Your task to perform on an android device: open a bookmark in the chrome app Image 0: 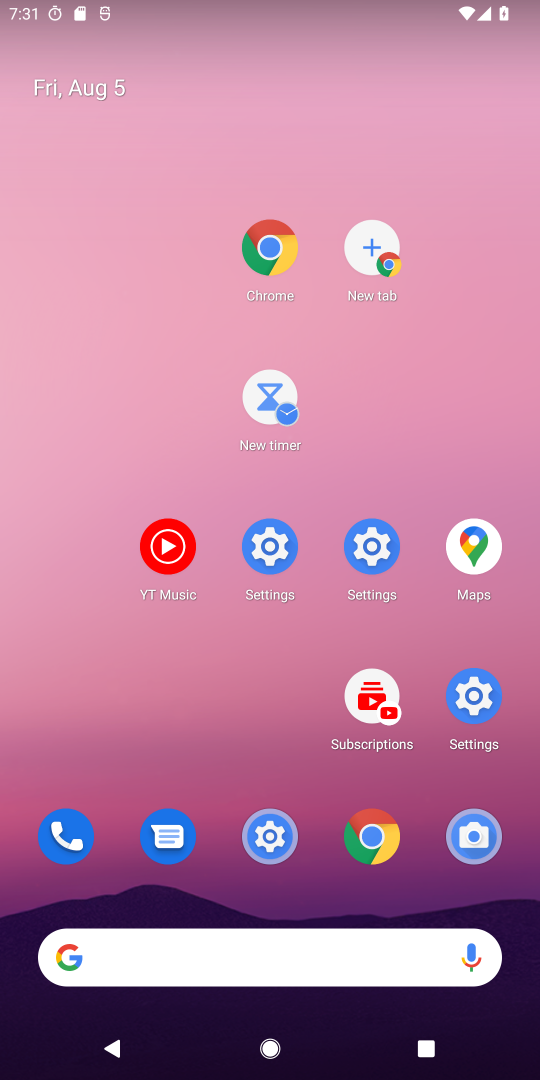
Step 0: click (357, 537)
Your task to perform on an android device: open a bookmark in the chrome app Image 1: 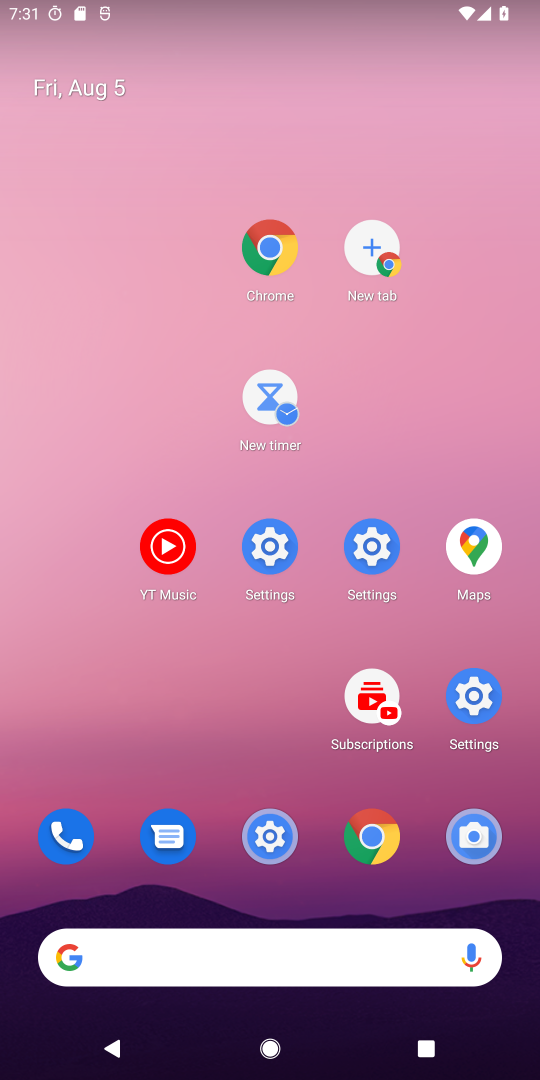
Step 1: drag from (364, 743) to (308, 304)
Your task to perform on an android device: open a bookmark in the chrome app Image 2: 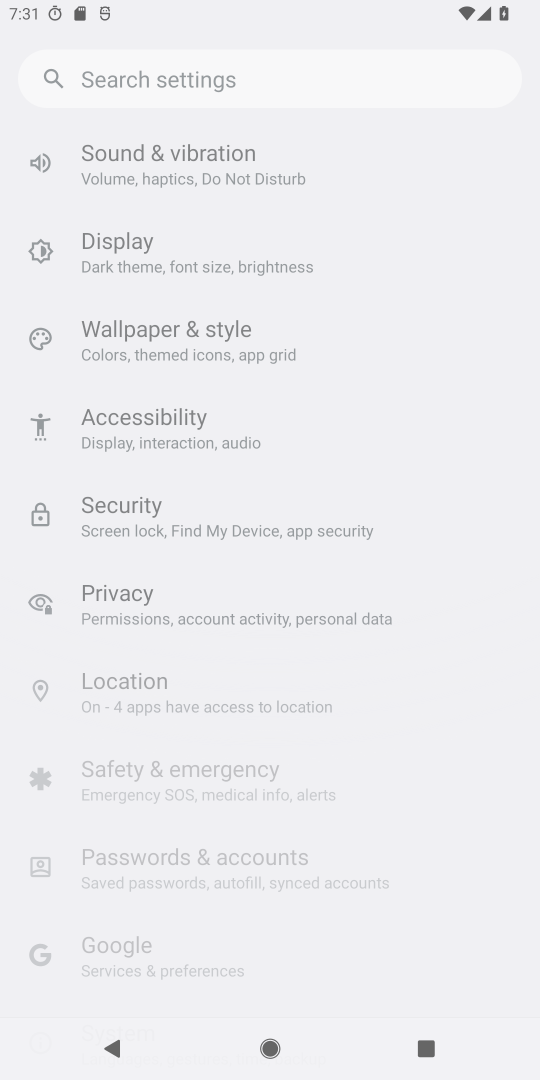
Step 2: click (239, 242)
Your task to perform on an android device: open a bookmark in the chrome app Image 3: 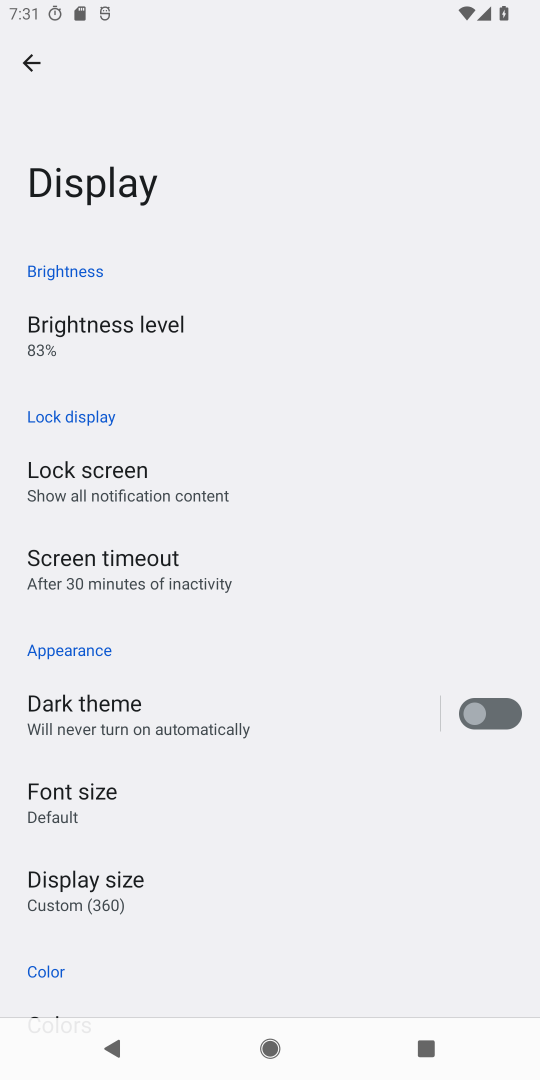
Step 3: click (28, 74)
Your task to perform on an android device: open a bookmark in the chrome app Image 4: 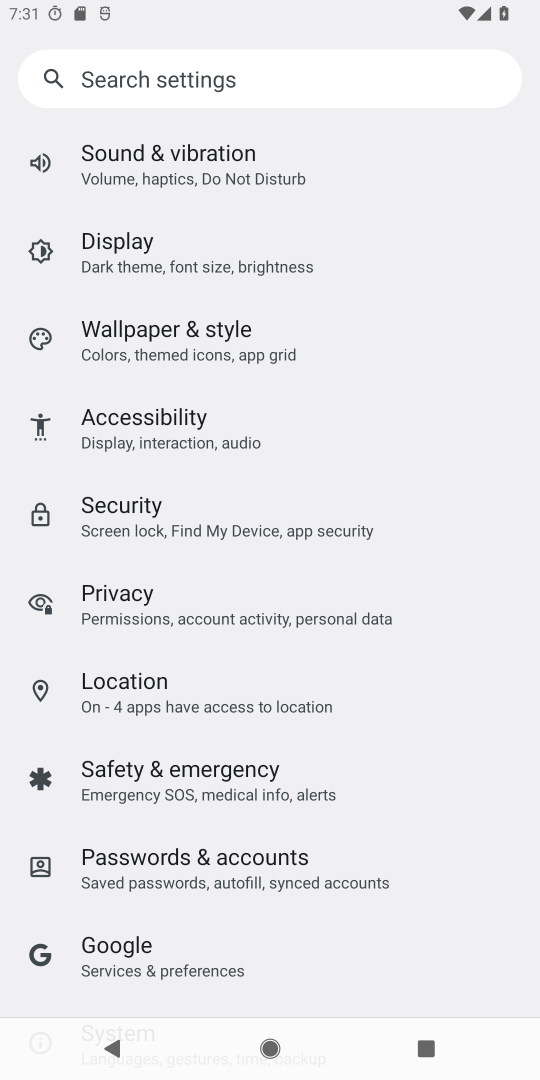
Step 4: drag from (180, 308) to (253, 731)
Your task to perform on an android device: open a bookmark in the chrome app Image 5: 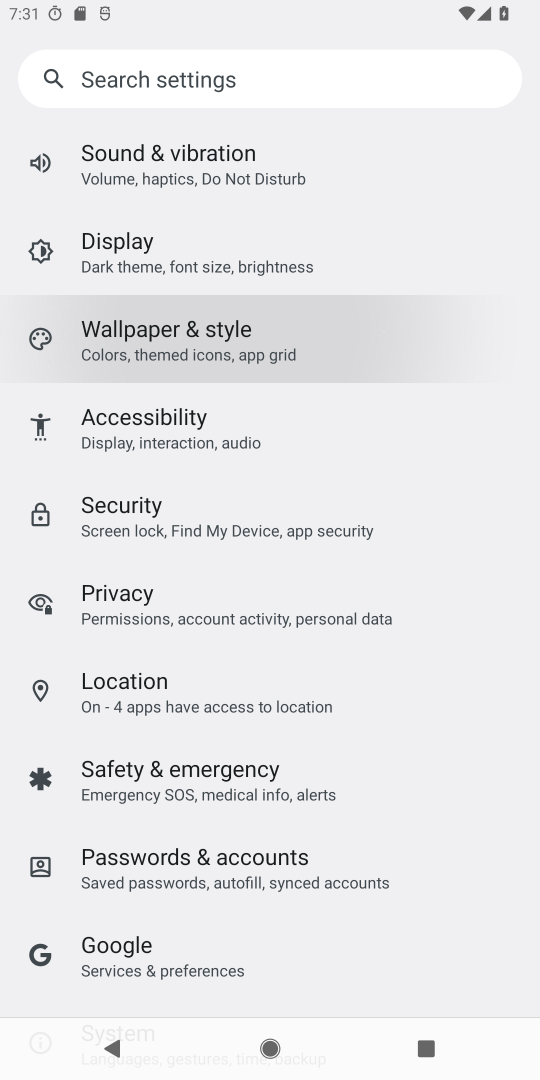
Step 5: drag from (126, 409) to (160, 809)
Your task to perform on an android device: open a bookmark in the chrome app Image 6: 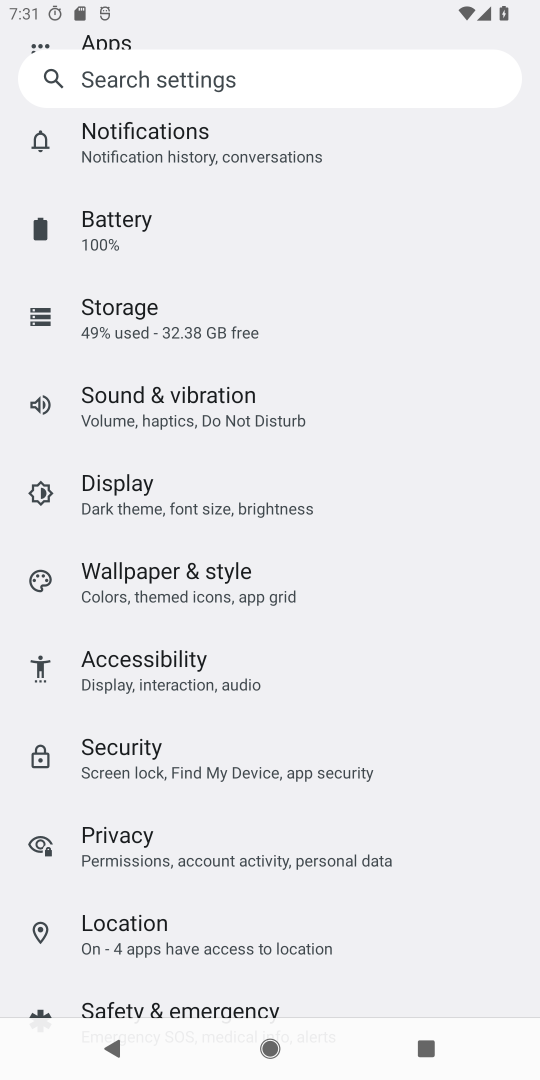
Step 6: press back button
Your task to perform on an android device: open a bookmark in the chrome app Image 7: 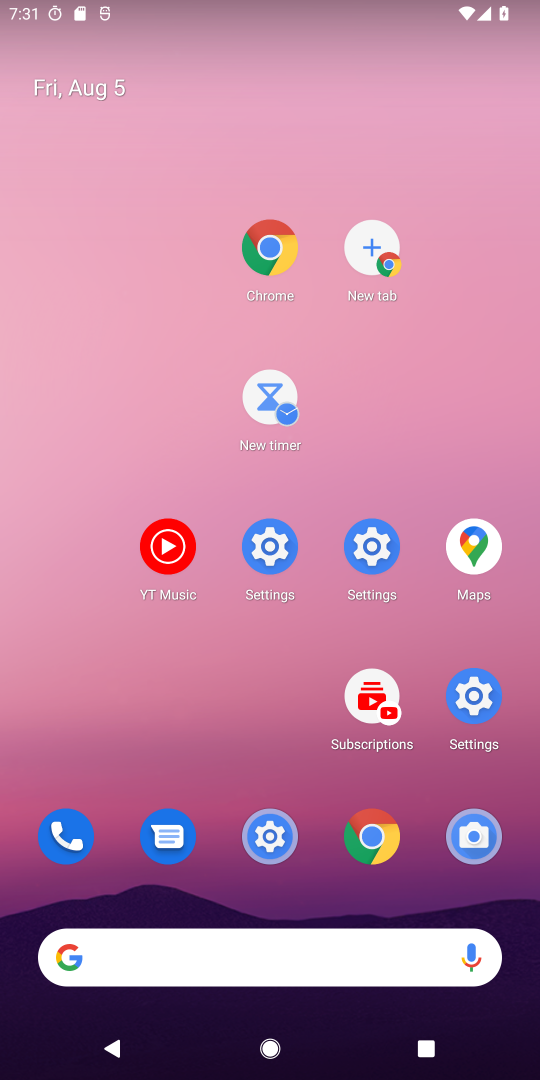
Step 7: drag from (308, 725) to (313, 370)
Your task to perform on an android device: open a bookmark in the chrome app Image 8: 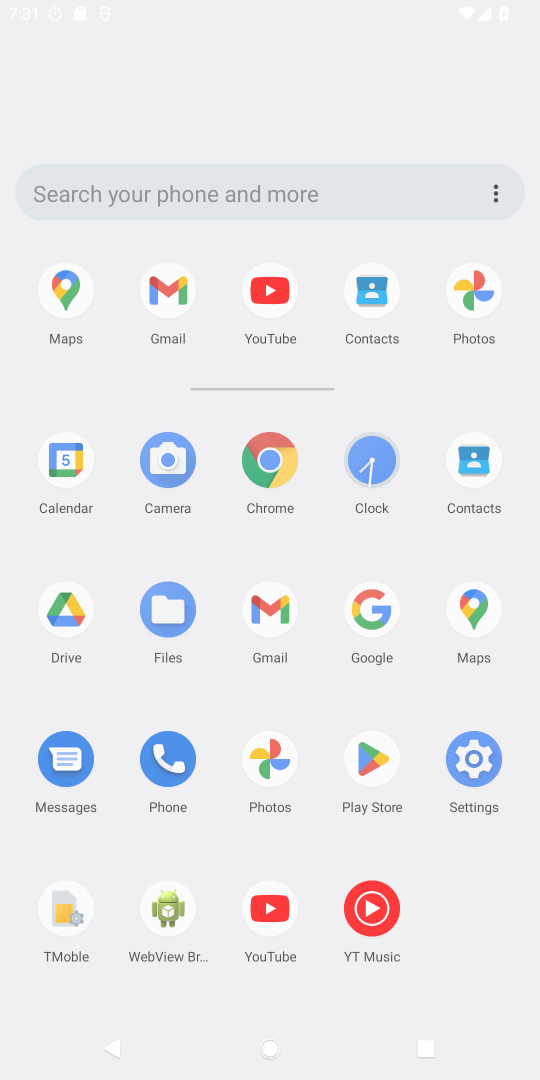
Step 8: click (237, 400)
Your task to perform on an android device: open a bookmark in the chrome app Image 9: 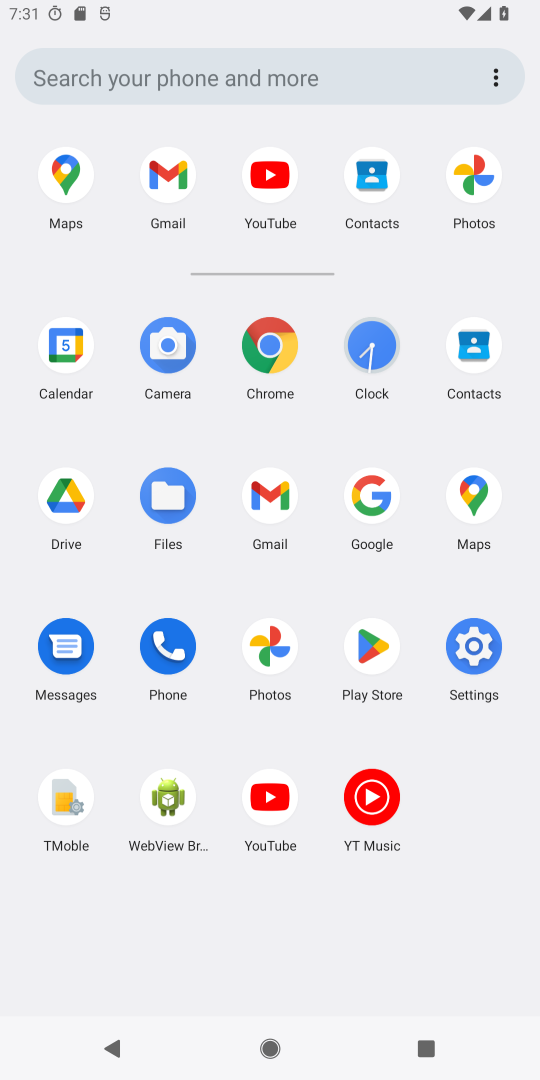
Step 9: drag from (315, 866) to (196, 229)
Your task to perform on an android device: open a bookmark in the chrome app Image 10: 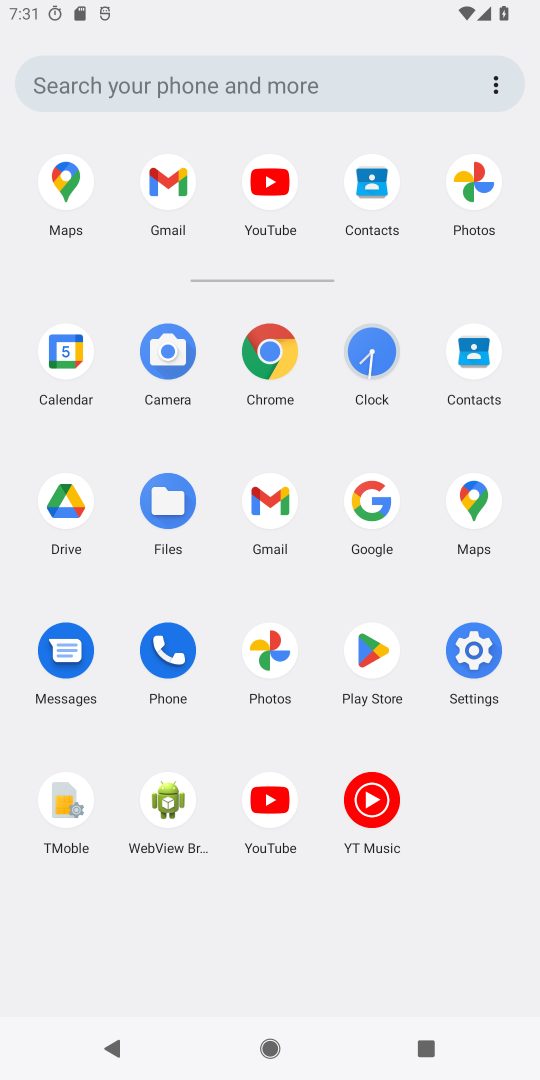
Step 10: click (265, 352)
Your task to perform on an android device: open a bookmark in the chrome app Image 11: 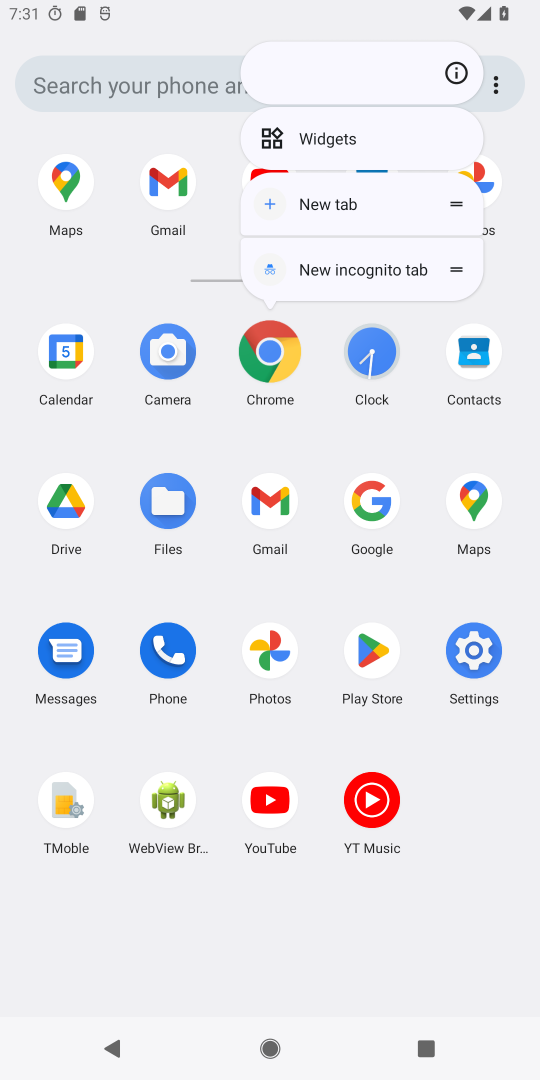
Step 11: click (266, 353)
Your task to perform on an android device: open a bookmark in the chrome app Image 12: 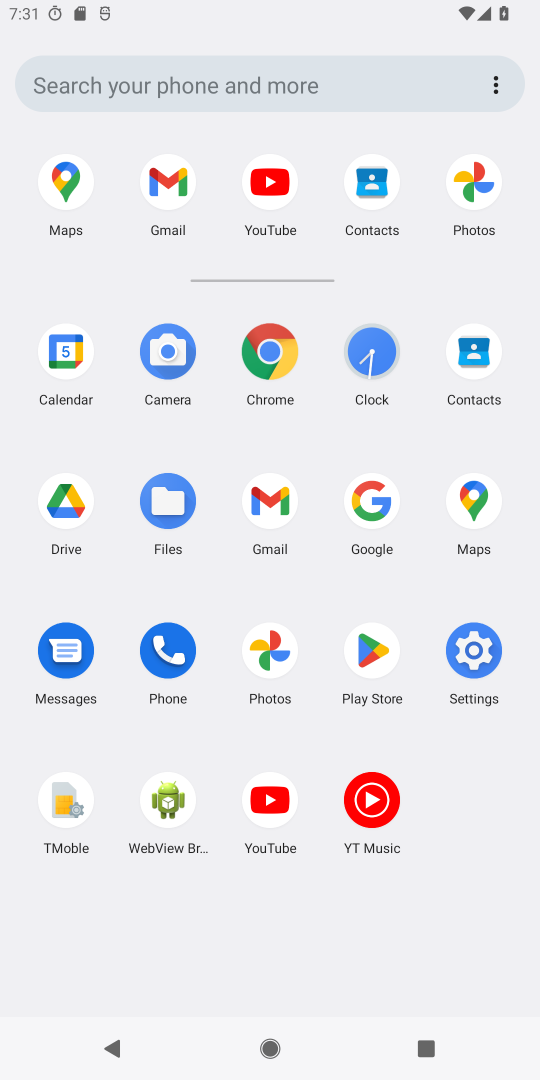
Step 12: click (264, 356)
Your task to perform on an android device: open a bookmark in the chrome app Image 13: 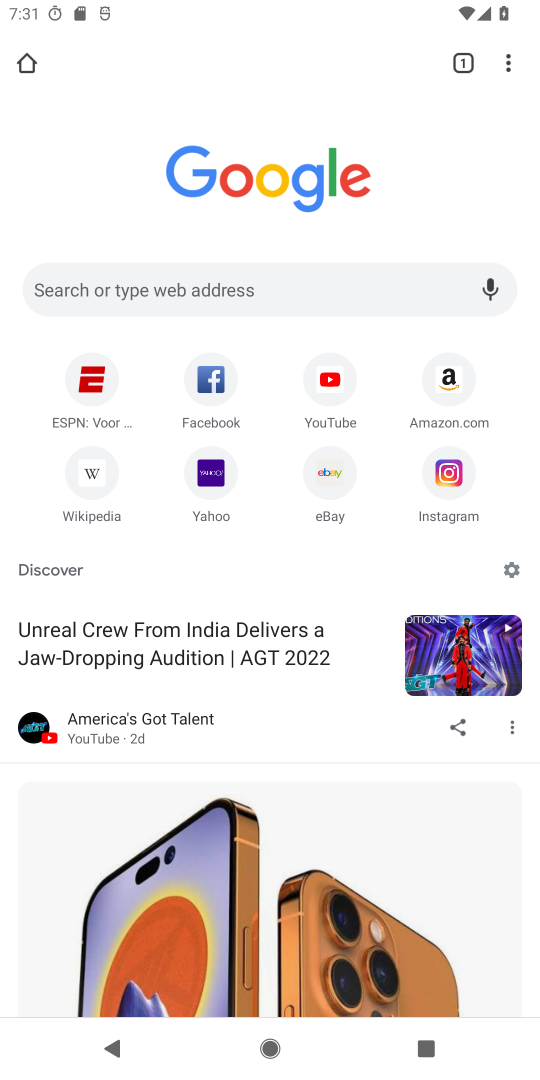
Step 13: drag from (508, 70) to (455, 127)
Your task to perform on an android device: open a bookmark in the chrome app Image 14: 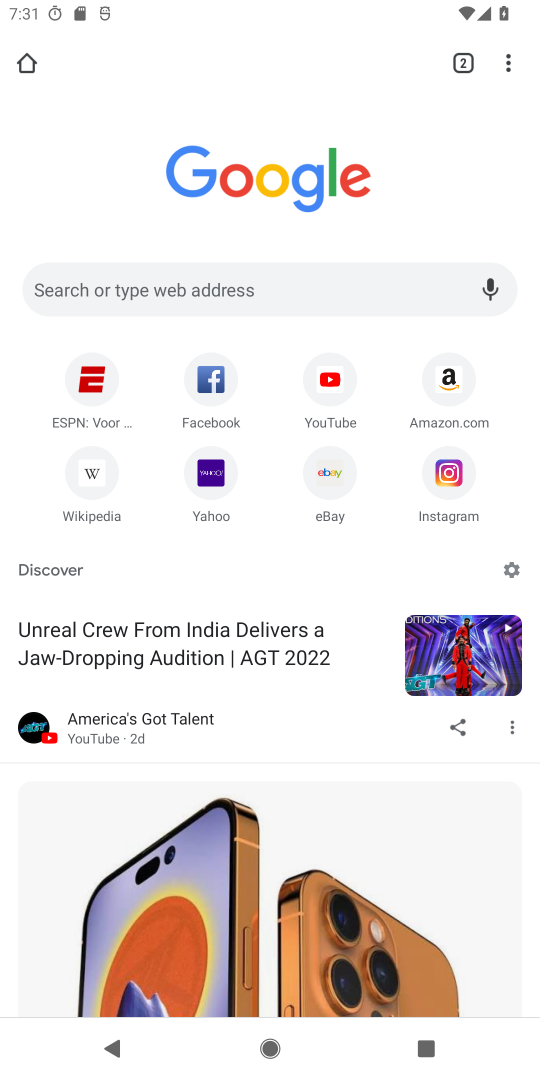
Step 14: drag from (502, 64) to (336, 534)
Your task to perform on an android device: open a bookmark in the chrome app Image 15: 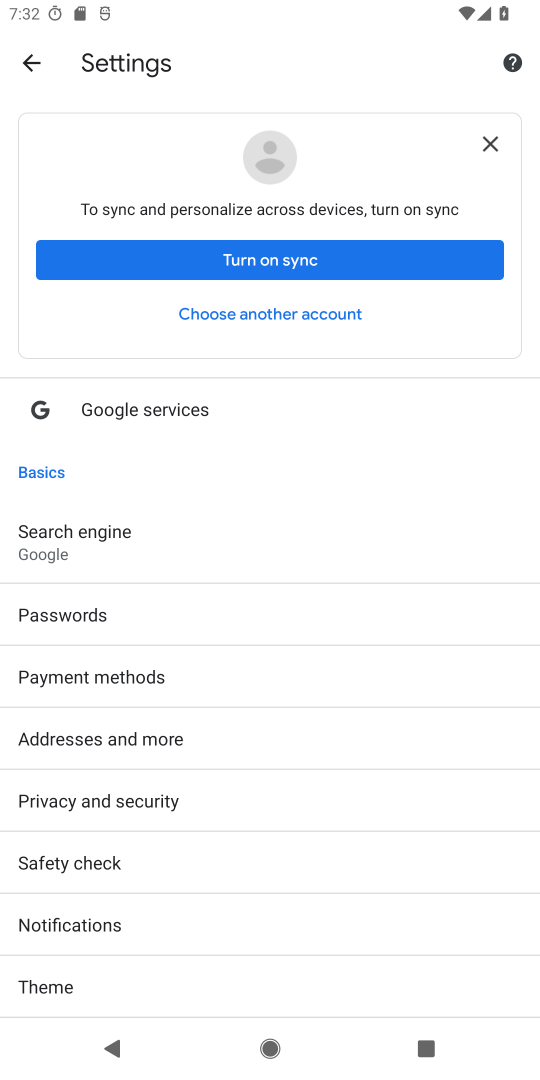
Step 15: click (27, 61)
Your task to perform on an android device: open a bookmark in the chrome app Image 16: 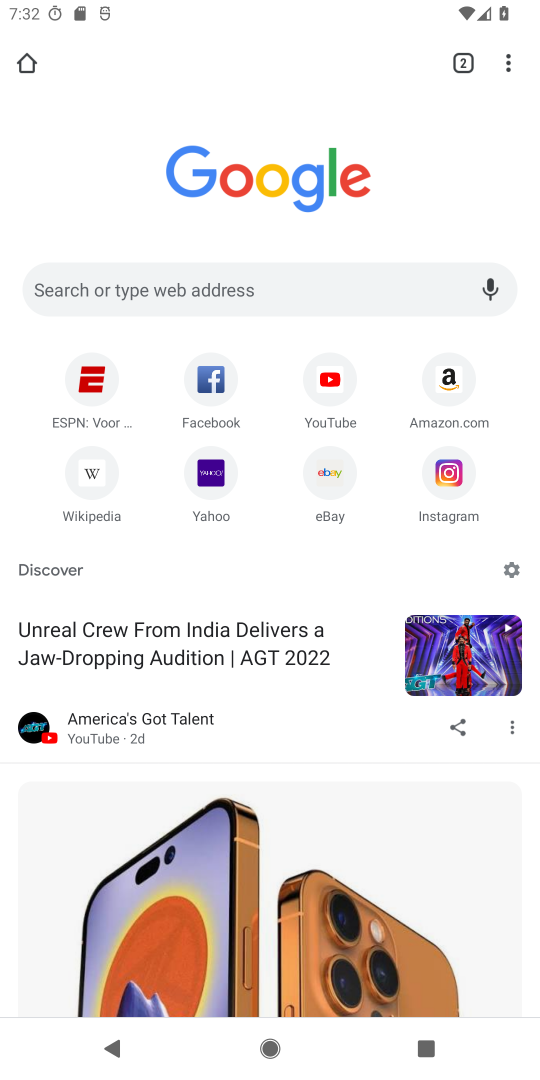
Step 16: drag from (507, 55) to (355, 351)
Your task to perform on an android device: open a bookmark in the chrome app Image 17: 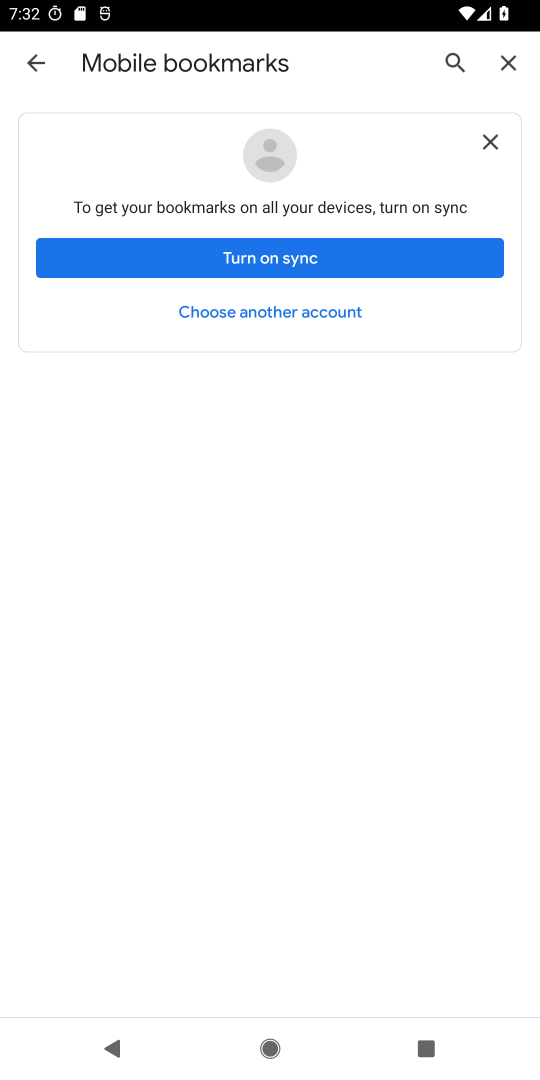
Step 17: click (487, 134)
Your task to perform on an android device: open a bookmark in the chrome app Image 18: 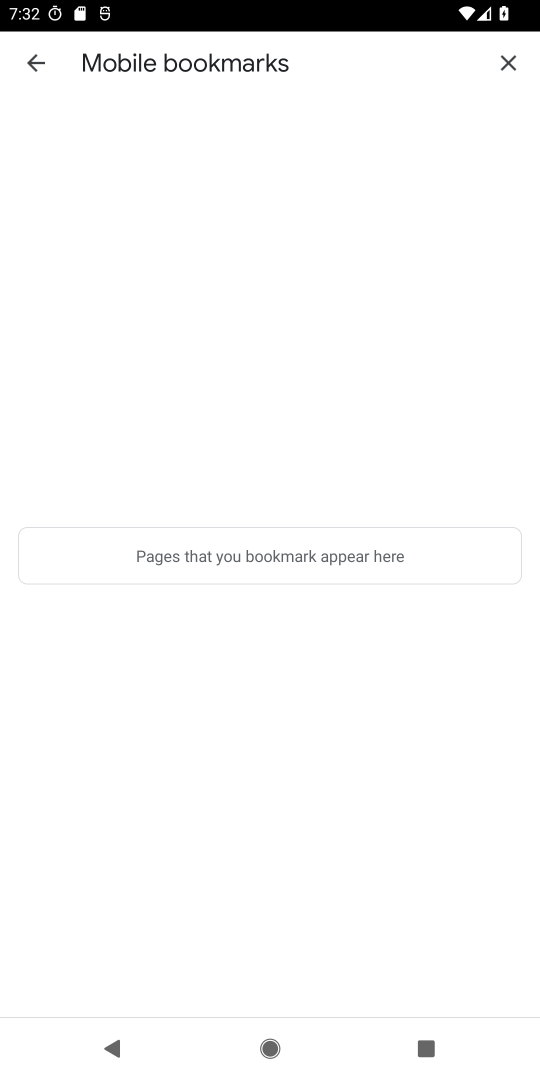
Step 18: click (507, 65)
Your task to perform on an android device: open a bookmark in the chrome app Image 19: 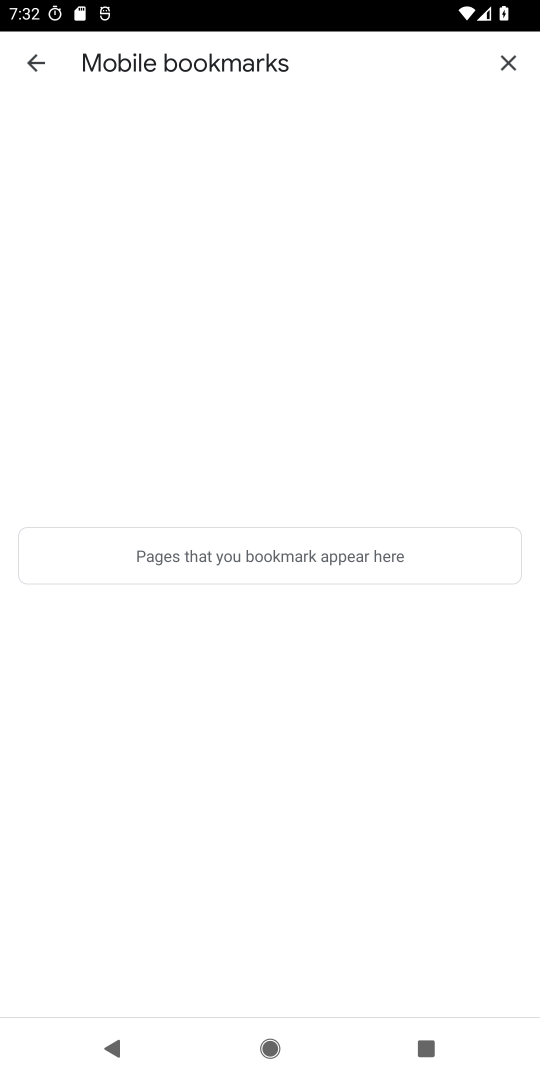
Step 19: click (33, 62)
Your task to perform on an android device: open a bookmark in the chrome app Image 20: 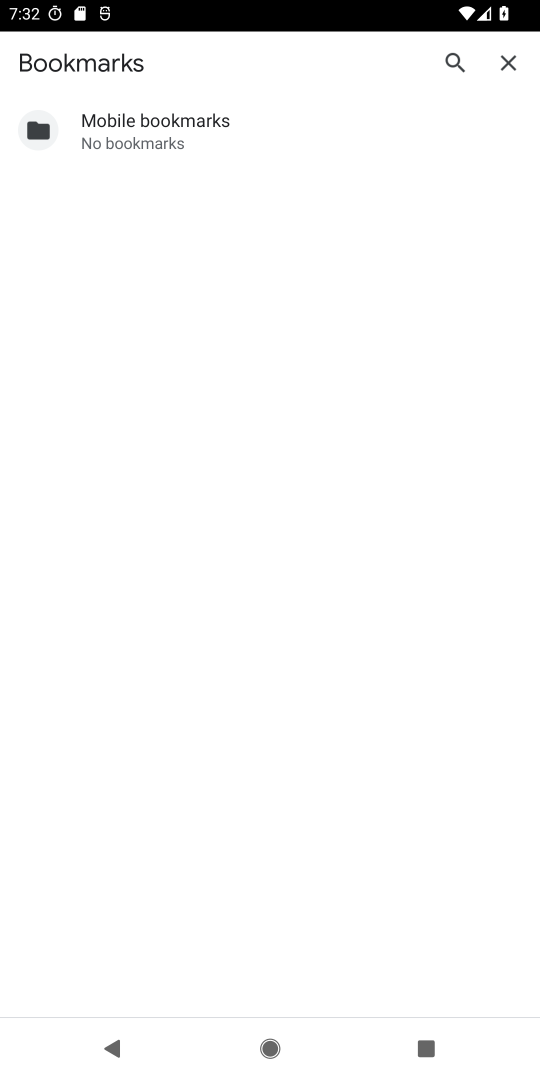
Step 20: click (501, 67)
Your task to perform on an android device: open a bookmark in the chrome app Image 21: 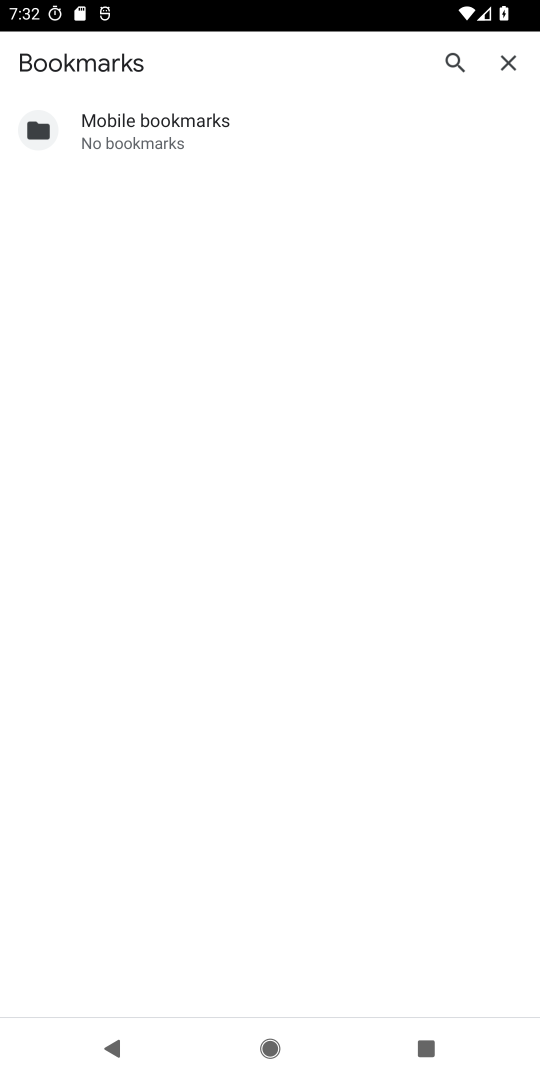
Step 21: task complete